Your task to perform on an android device: Go to display settings Image 0: 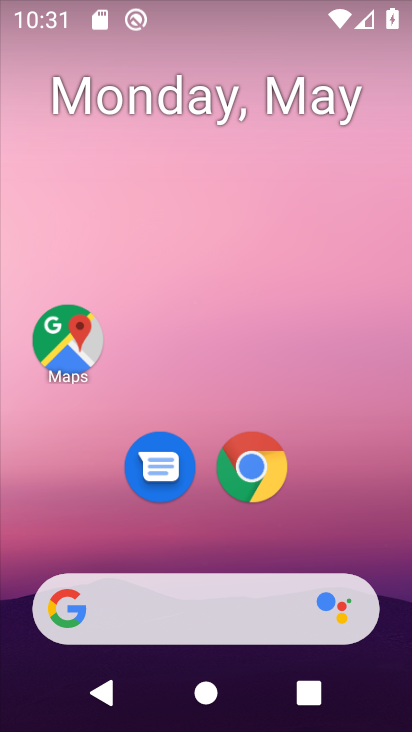
Step 0: drag from (148, 731) to (170, 45)
Your task to perform on an android device: Go to display settings Image 1: 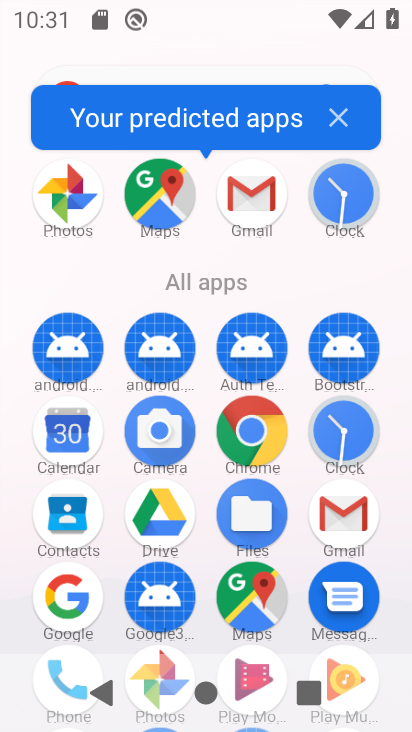
Step 1: drag from (107, 567) to (144, 112)
Your task to perform on an android device: Go to display settings Image 2: 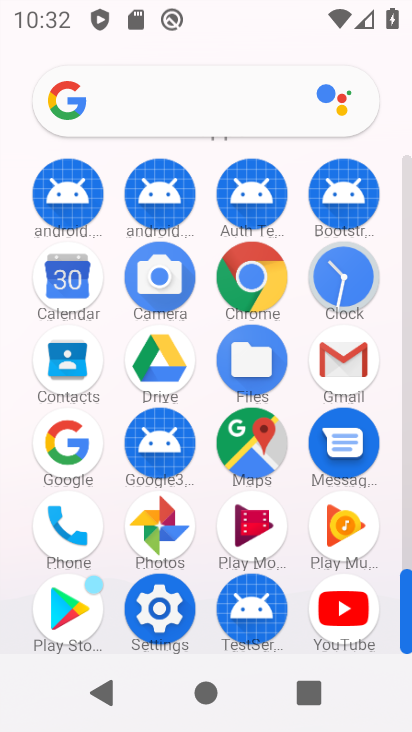
Step 2: click (152, 622)
Your task to perform on an android device: Go to display settings Image 3: 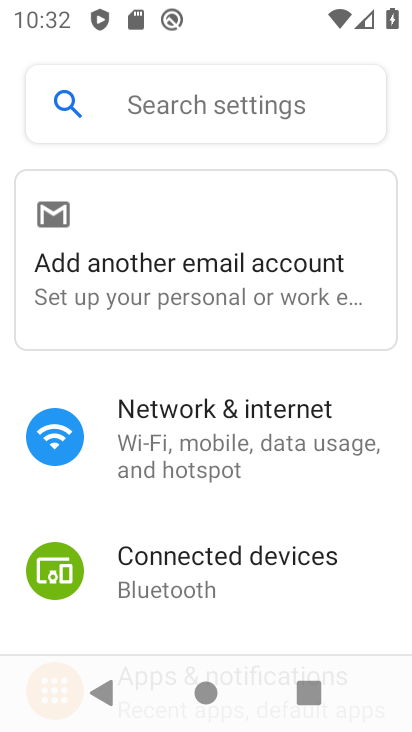
Step 3: drag from (241, 568) to (215, 148)
Your task to perform on an android device: Go to display settings Image 4: 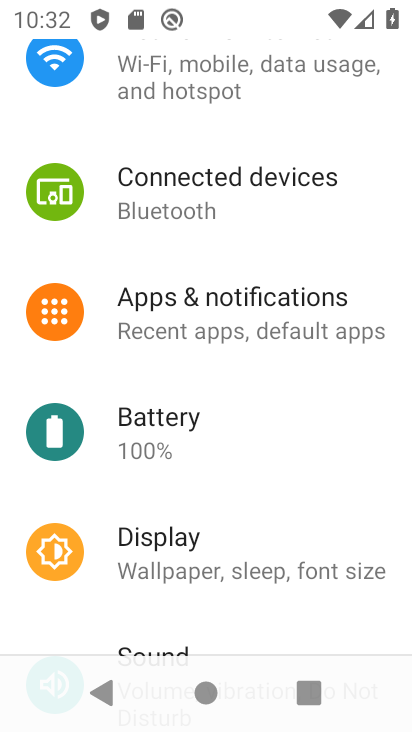
Step 4: click (137, 561)
Your task to perform on an android device: Go to display settings Image 5: 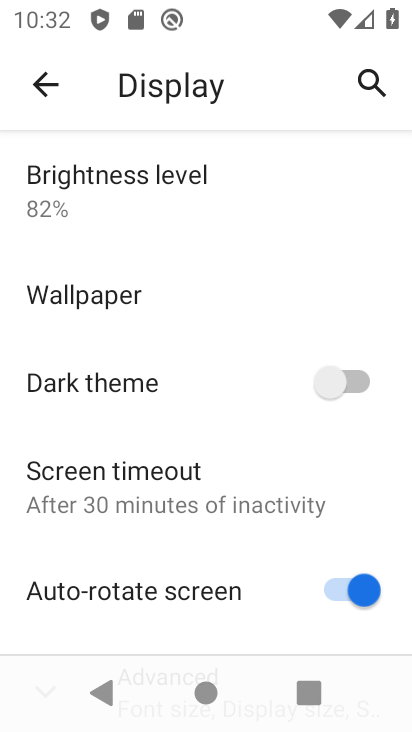
Step 5: task complete